Your task to perform on an android device: change notification settings in the gmail app Image 0: 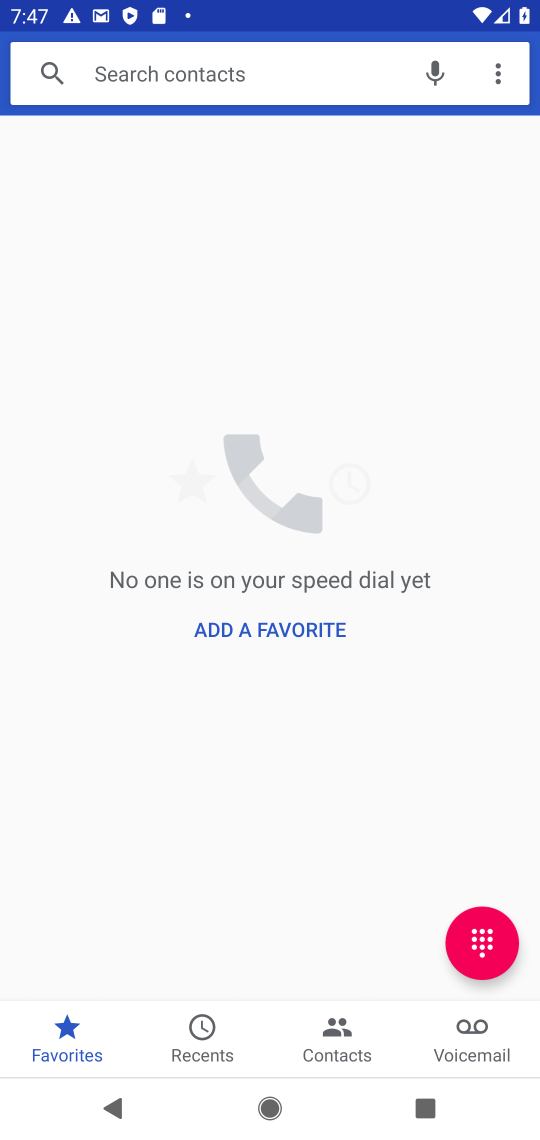
Step 0: press home button
Your task to perform on an android device: change notification settings in the gmail app Image 1: 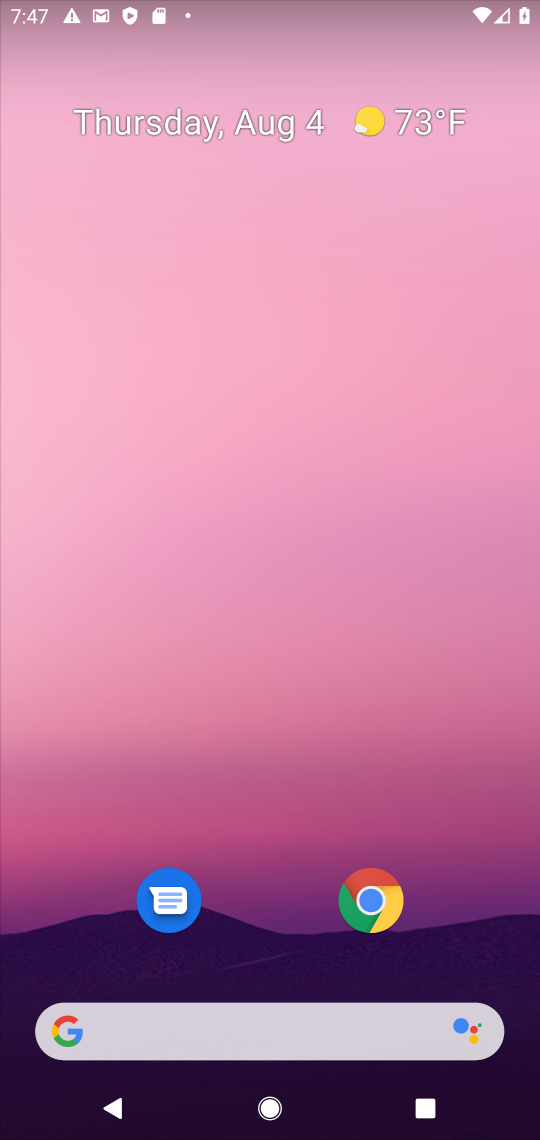
Step 1: drag from (213, 986) to (426, 121)
Your task to perform on an android device: change notification settings in the gmail app Image 2: 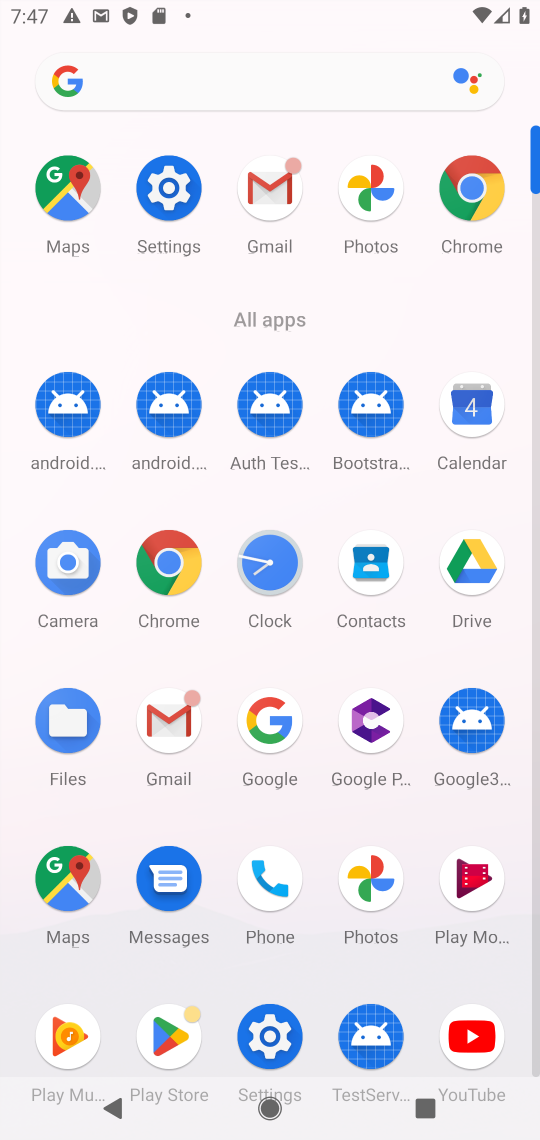
Step 2: click (280, 194)
Your task to perform on an android device: change notification settings in the gmail app Image 3: 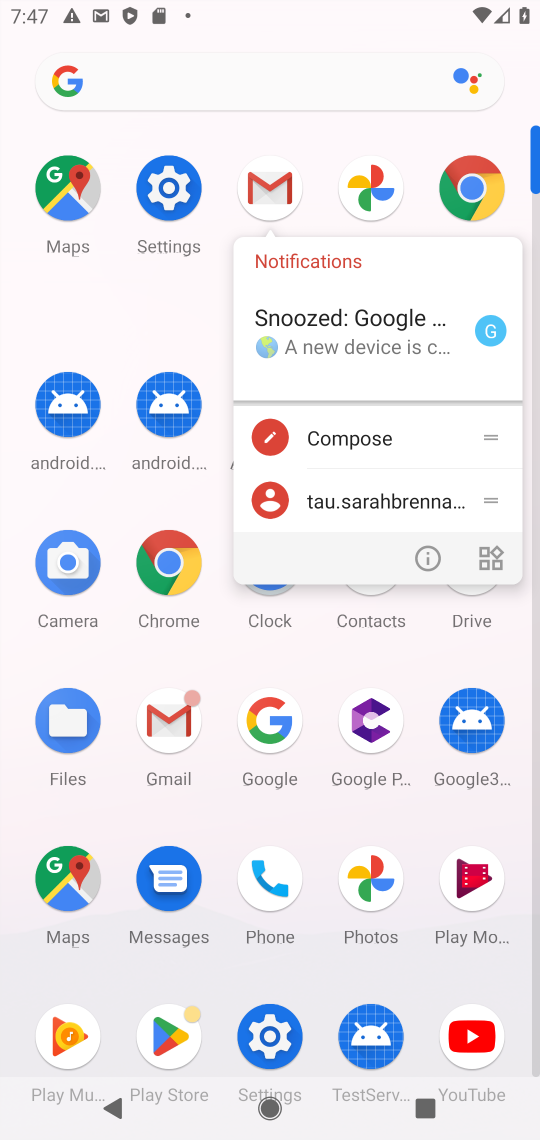
Step 3: click (268, 191)
Your task to perform on an android device: change notification settings in the gmail app Image 4: 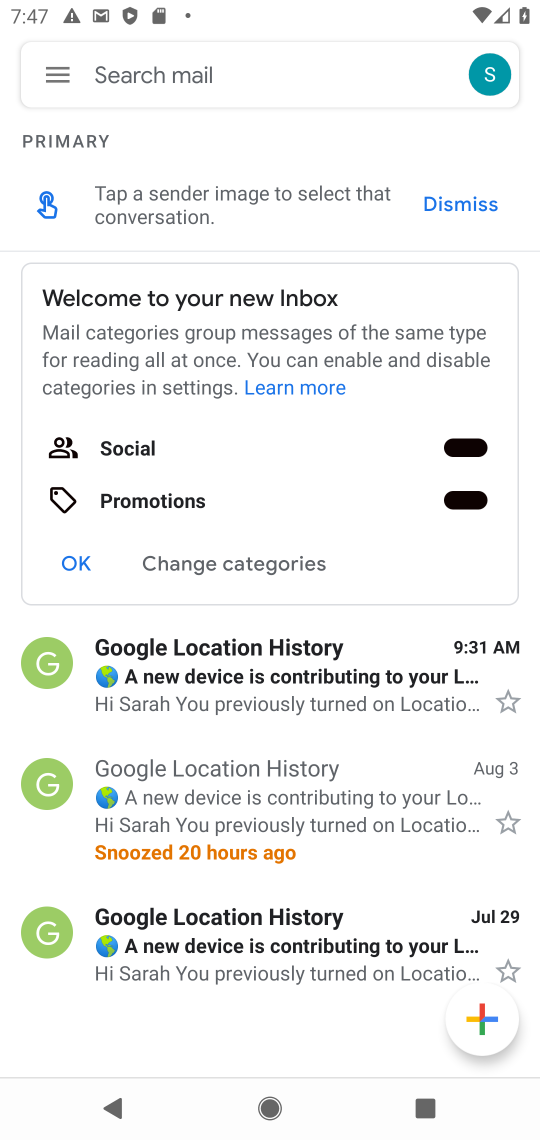
Step 4: click (47, 79)
Your task to perform on an android device: change notification settings in the gmail app Image 5: 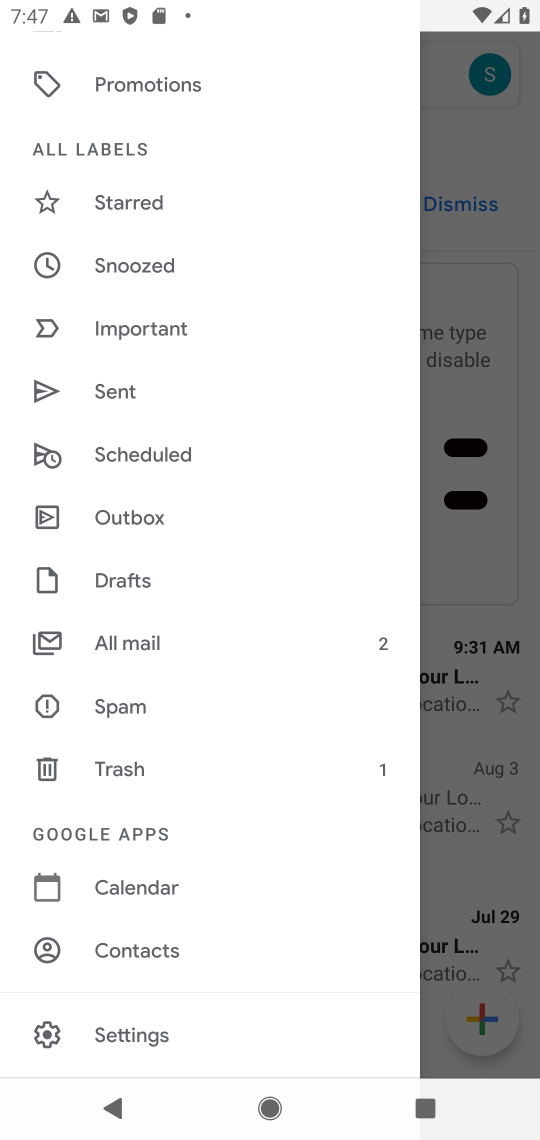
Step 5: click (140, 1033)
Your task to perform on an android device: change notification settings in the gmail app Image 6: 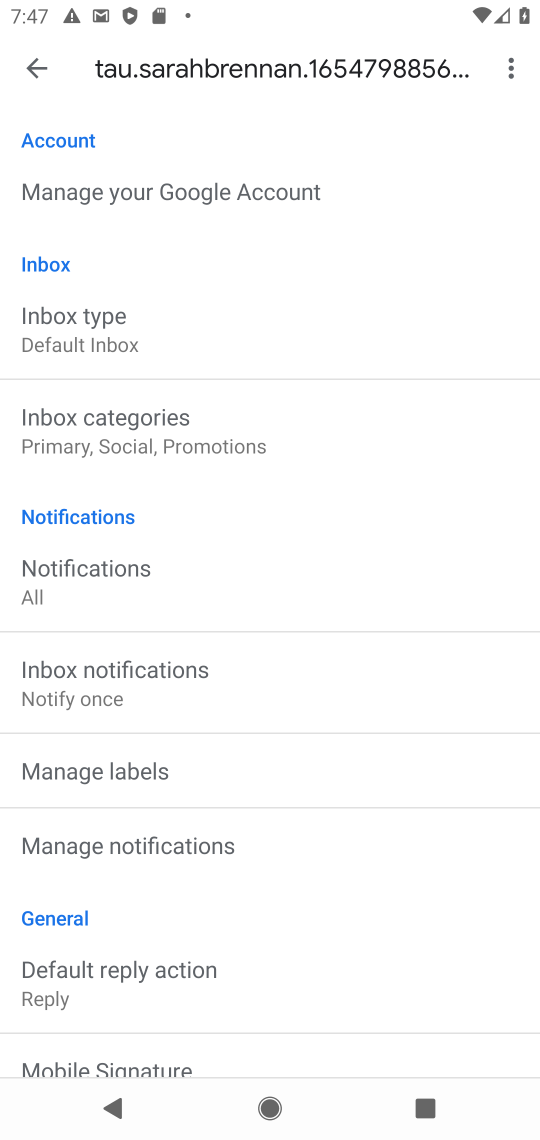
Step 6: click (83, 572)
Your task to perform on an android device: change notification settings in the gmail app Image 7: 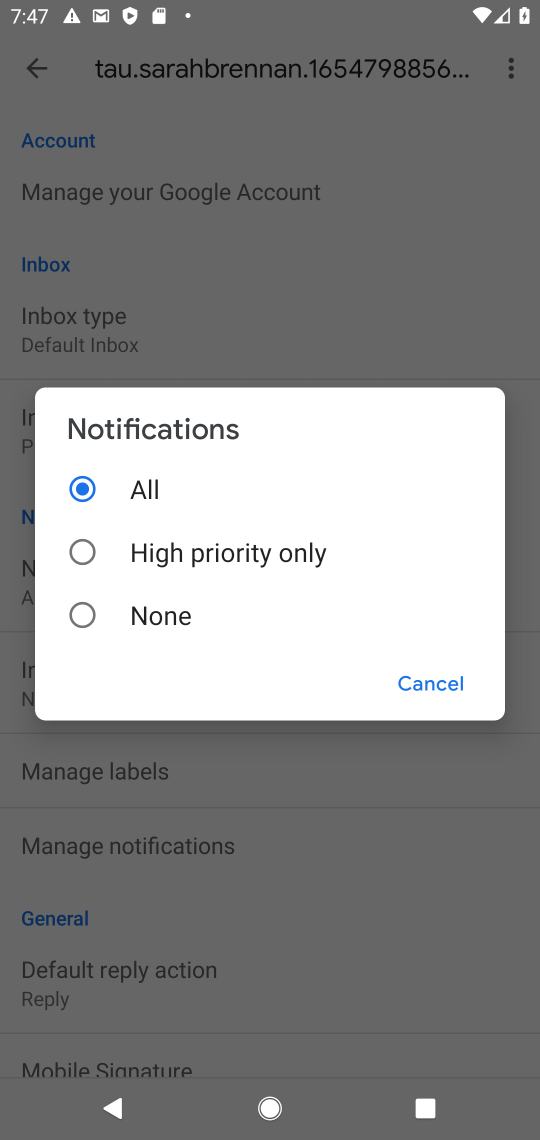
Step 7: click (85, 616)
Your task to perform on an android device: change notification settings in the gmail app Image 8: 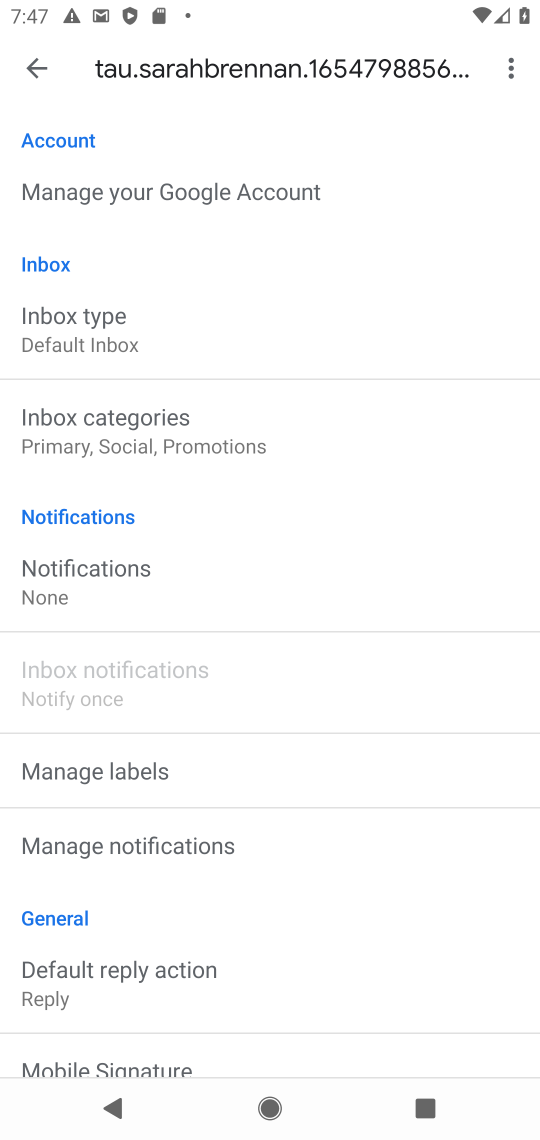
Step 8: task complete